Your task to perform on an android device: Go to Google maps Image 0: 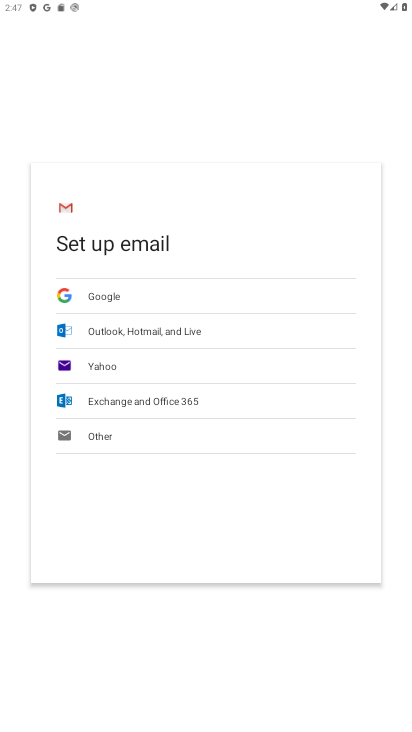
Step 0: press home button
Your task to perform on an android device: Go to Google maps Image 1: 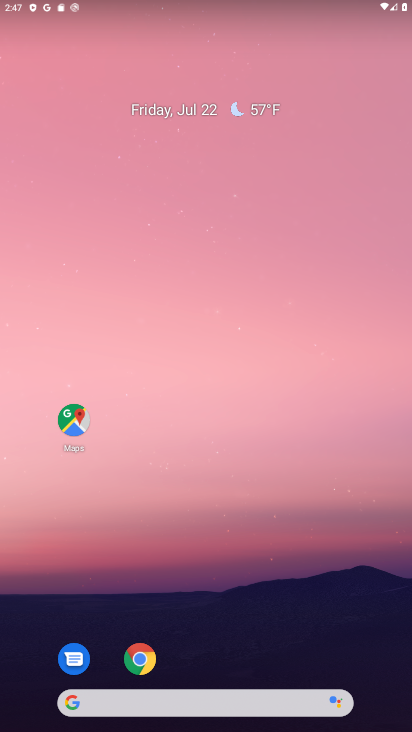
Step 1: click (74, 415)
Your task to perform on an android device: Go to Google maps Image 2: 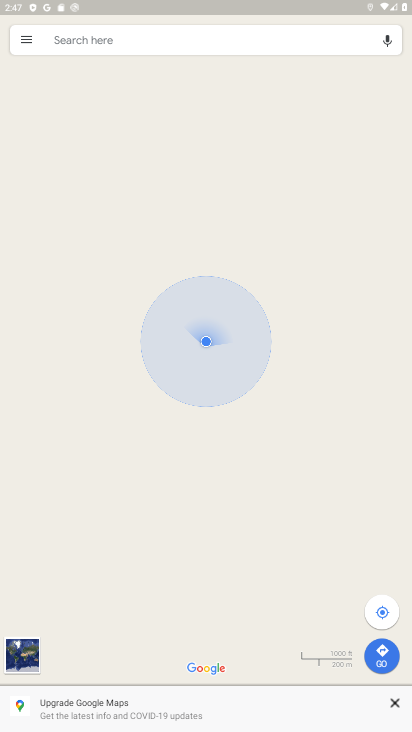
Step 2: click (27, 37)
Your task to perform on an android device: Go to Google maps Image 3: 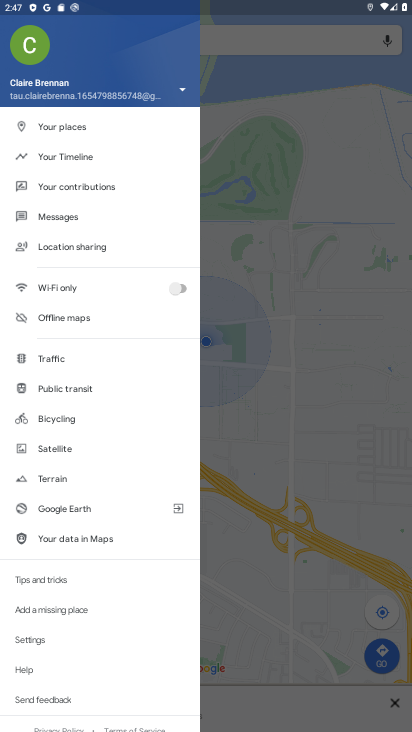
Step 3: task complete